Your task to perform on an android device: clear history in the chrome app Image 0: 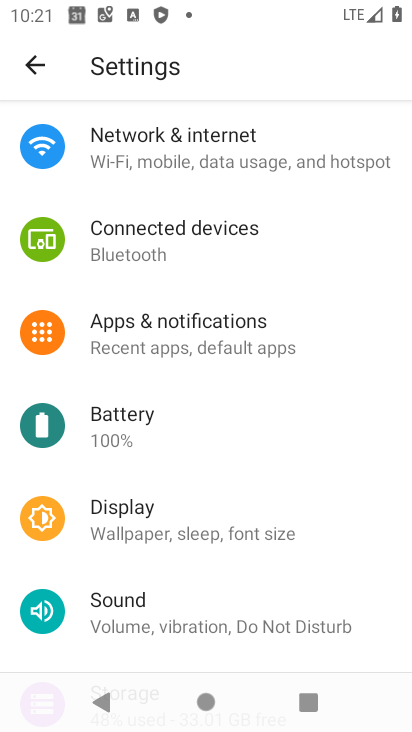
Step 0: press home button
Your task to perform on an android device: clear history in the chrome app Image 1: 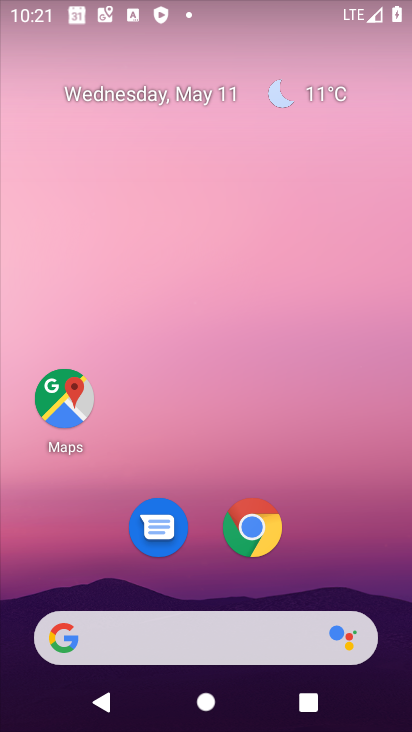
Step 1: drag from (330, 522) to (348, 97)
Your task to perform on an android device: clear history in the chrome app Image 2: 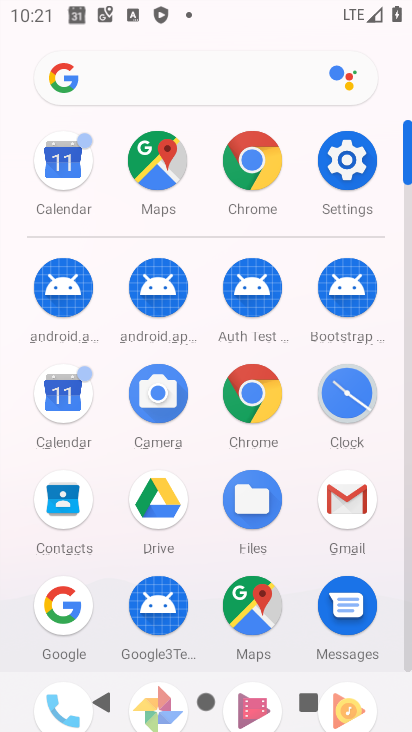
Step 2: click (259, 161)
Your task to perform on an android device: clear history in the chrome app Image 3: 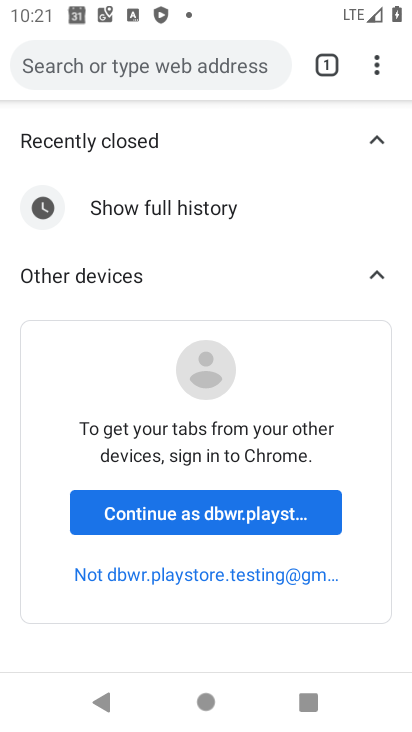
Step 3: drag from (369, 66) to (172, 376)
Your task to perform on an android device: clear history in the chrome app Image 4: 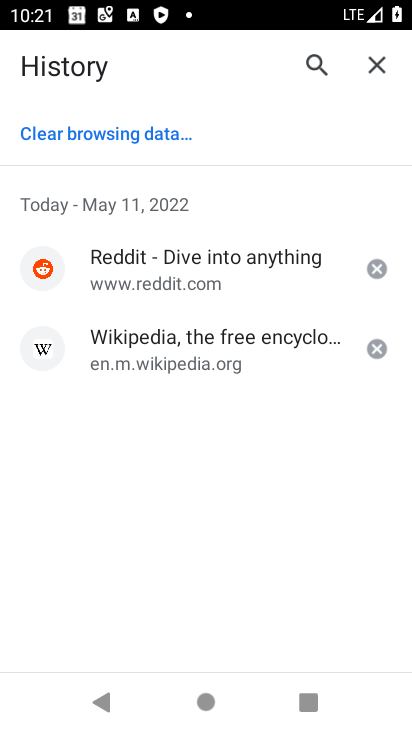
Step 4: click (141, 138)
Your task to perform on an android device: clear history in the chrome app Image 5: 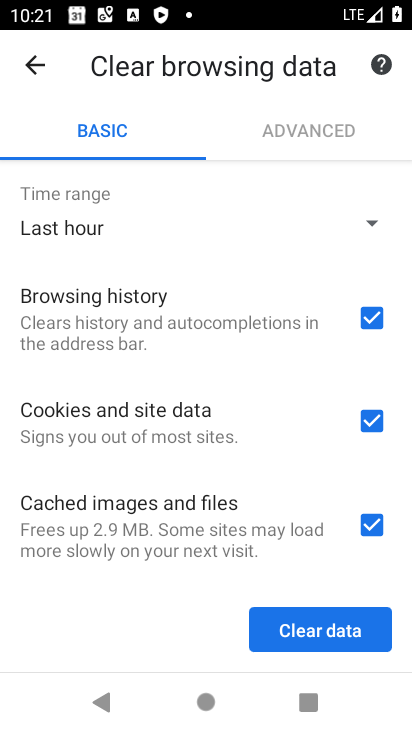
Step 5: click (354, 627)
Your task to perform on an android device: clear history in the chrome app Image 6: 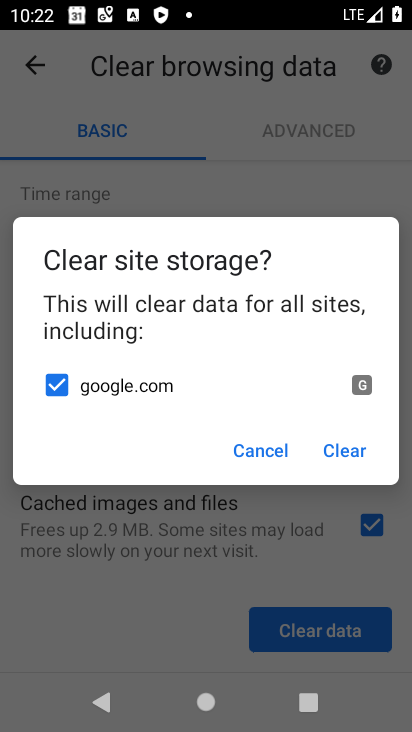
Step 6: click (361, 462)
Your task to perform on an android device: clear history in the chrome app Image 7: 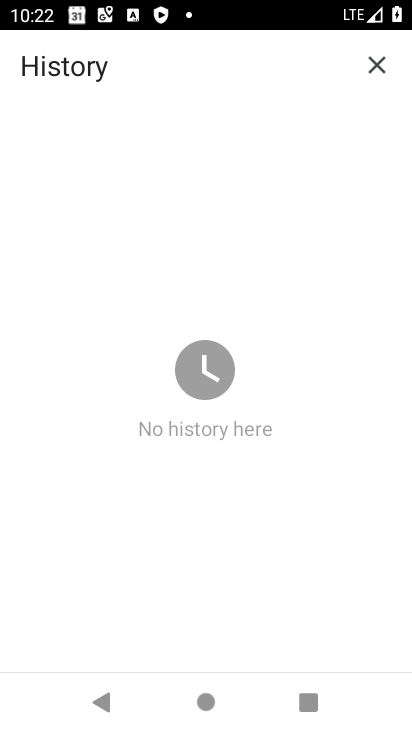
Step 7: task complete